Your task to perform on an android device: change timer sound Image 0: 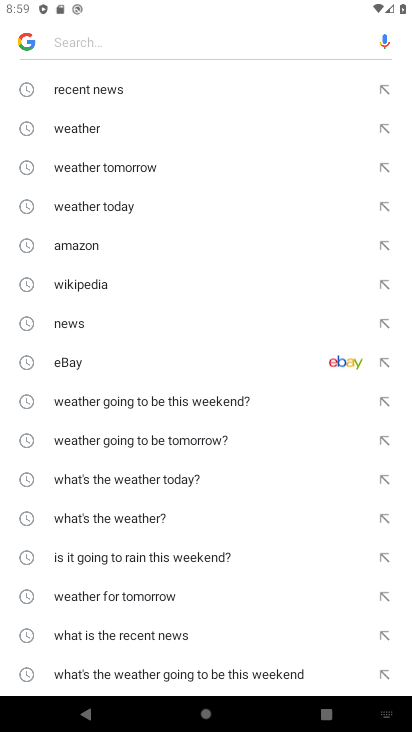
Step 0: press back button
Your task to perform on an android device: change timer sound Image 1: 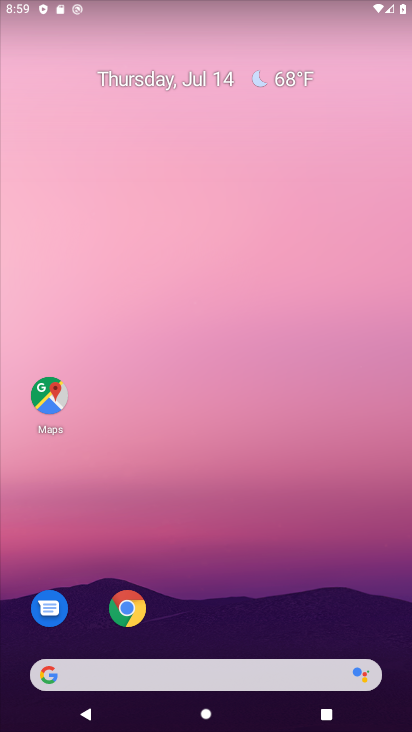
Step 1: drag from (196, 665) to (259, 79)
Your task to perform on an android device: change timer sound Image 2: 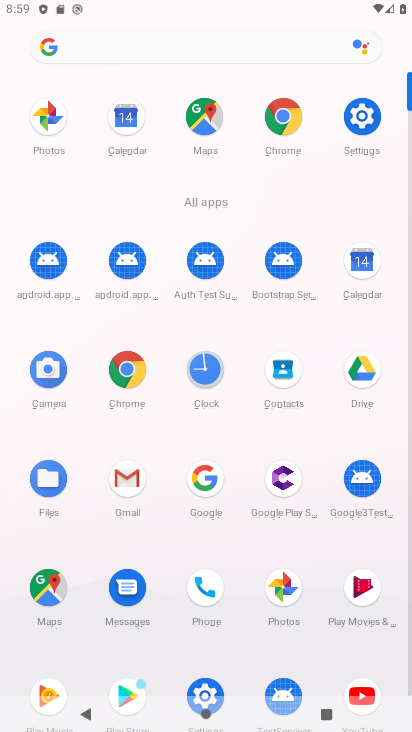
Step 2: click (195, 378)
Your task to perform on an android device: change timer sound Image 3: 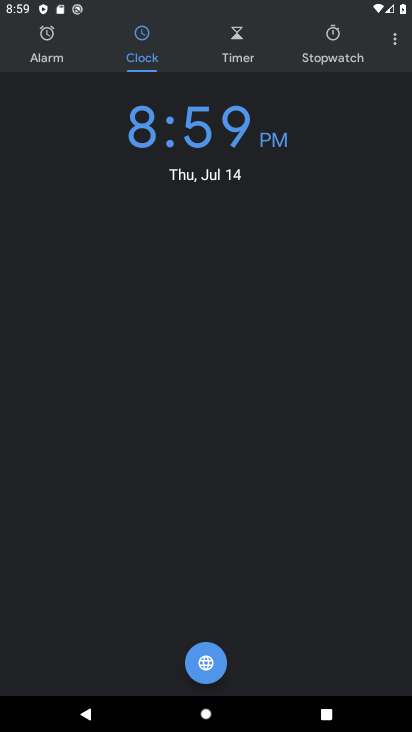
Step 3: click (391, 38)
Your task to perform on an android device: change timer sound Image 4: 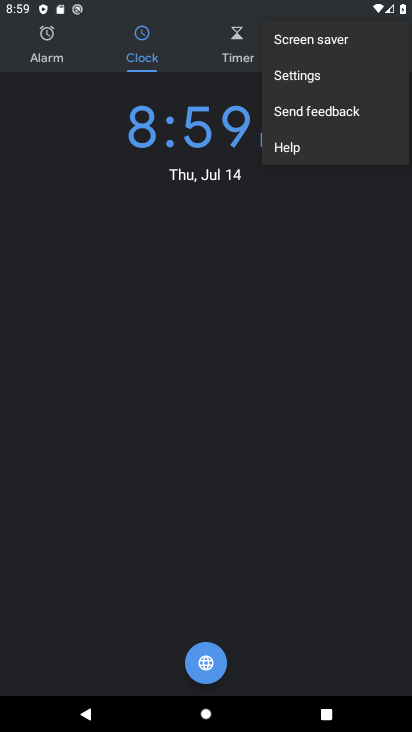
Step 4: click (325, 74)
Your task to perform on an android device: change timer sound Image 5: 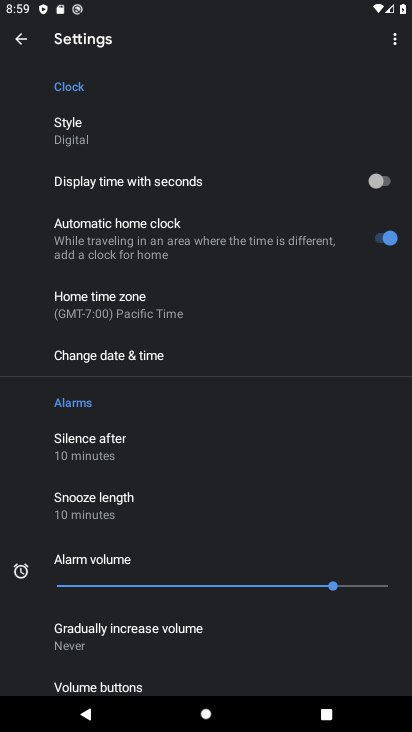
Step 5: drag from (134, 496) to (162, 90)
Your task to perform on an android device: change timer sound Image 6: 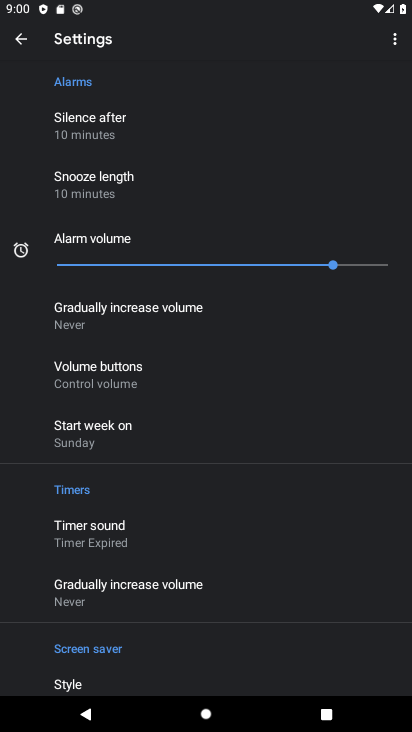
Step 6: click (113, 523)
Your task to perform on an android device: change timer sound Image 7: 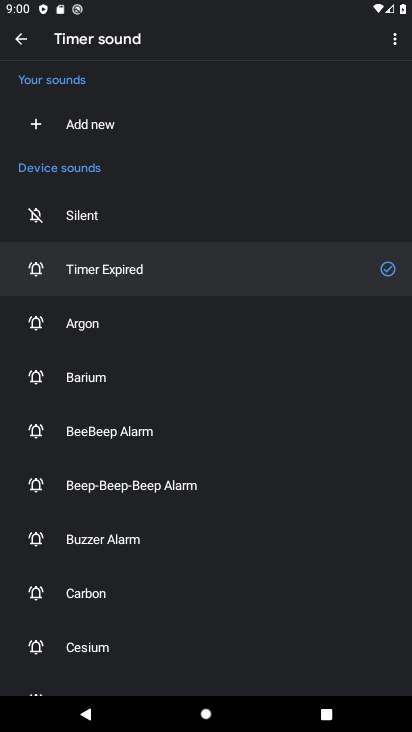
Step 7: click (117, 588)
Your task to perform on an android device: change timer sound Image 8: 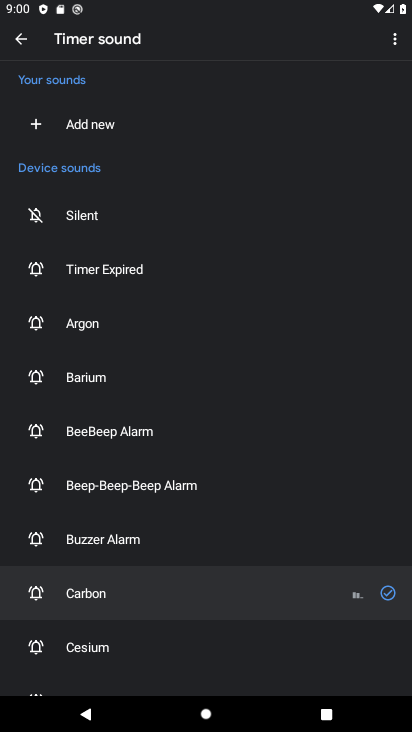
Step 8: task complete